Your task to perform on an android device: change the upload size in google photos Image 0: 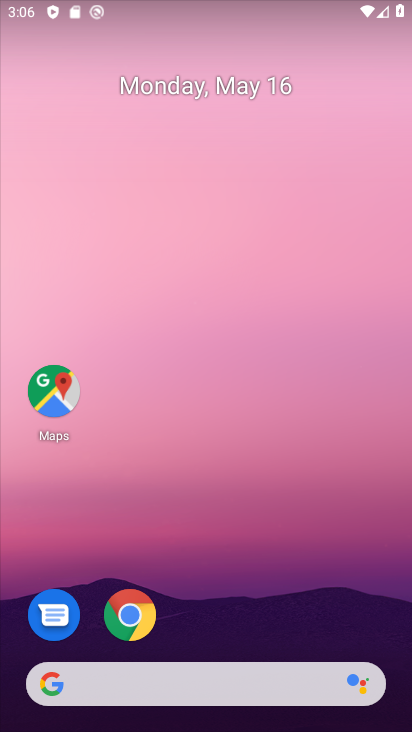
Step 0: drag from (289, 618) to (323, 59)
Your task to perform on an android device: change the upload size in google photos Image 1: 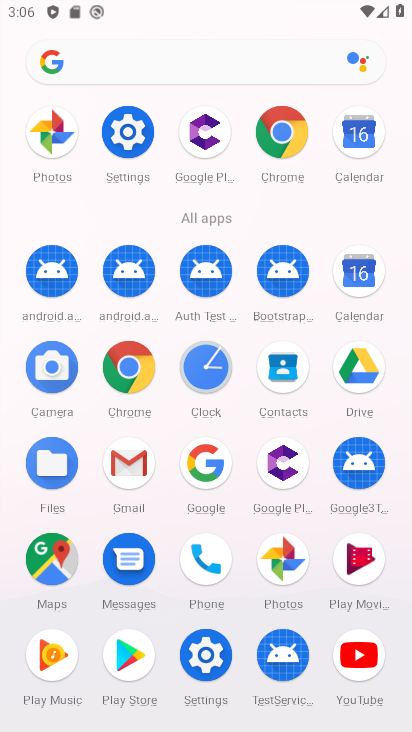
Step 1: click (286, 552)
Your task to perform on an android device: change the upload size in google photos Image 2: 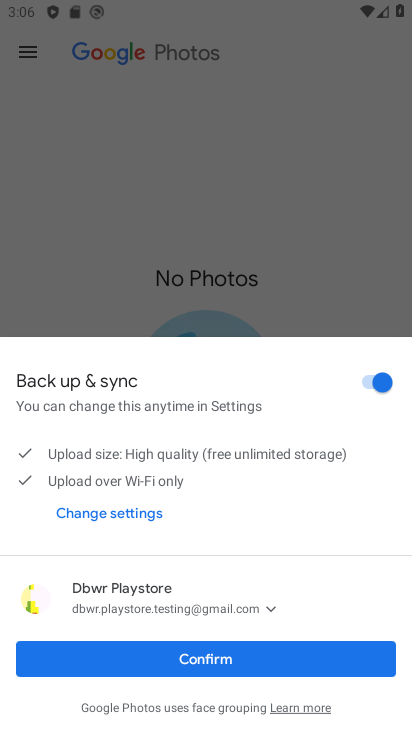
Step 2: click (37, 48)
Your task to perform on an android device: change the upload size in google photos Image 3: 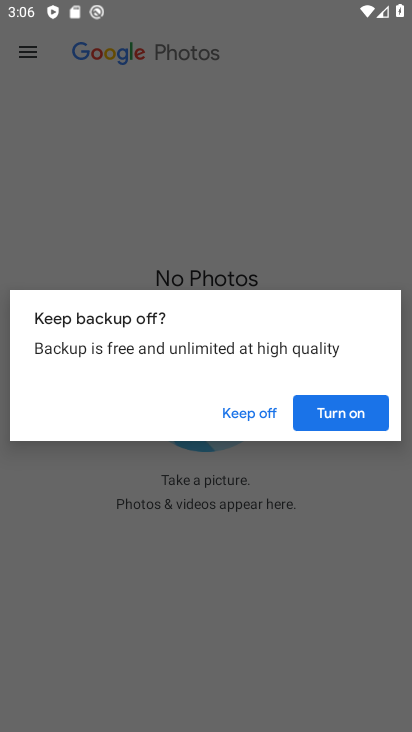
Step 3: click (330, 411)
Your task to perform on an android device: change the upload size in google photos Image 4: 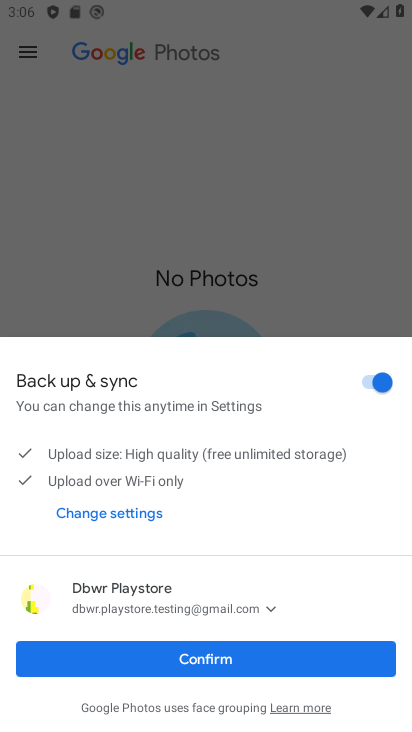
Step 4: click (223, 653)
Your task to perform on an android device: change the upload size in google photos Image 5: 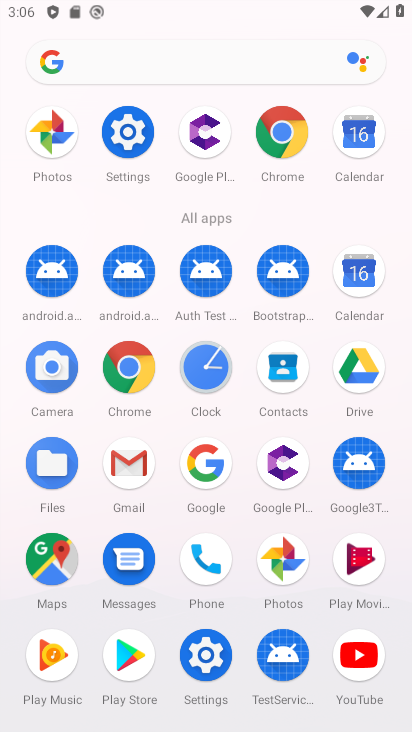
Step 5: click (51, 121)
Your task to perform on an android device: change the upload size in google photos Image 6: 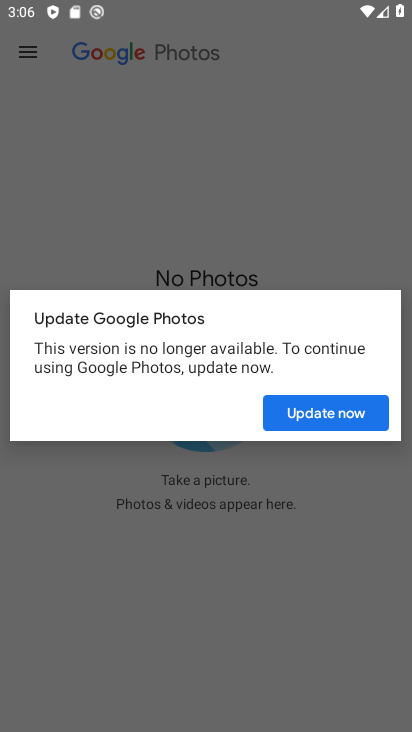
Step 6: click (284, 407)
Your task to perform on an android device: change the upload size in google photos Image 7: 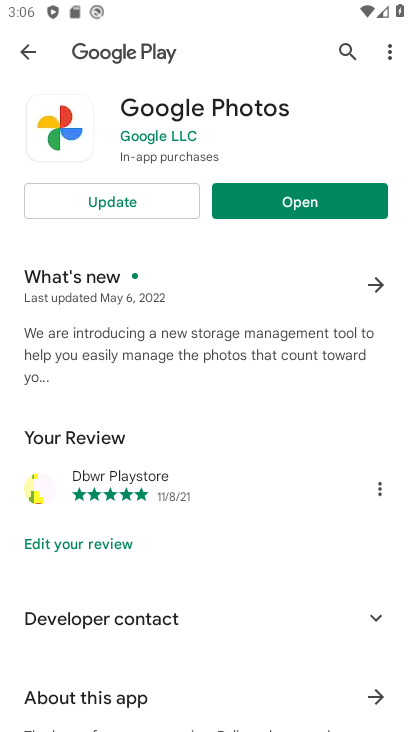
Step 7: click (322, 198)
Your task to perform on an android device: change the upload size in google photos Image 8: 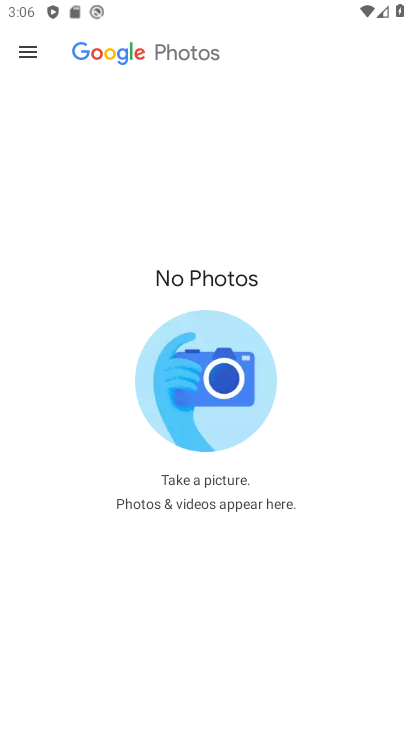
Step 8: click (24, 44)
Your task to perform on an android device: change the upload size in google photos Image 9: 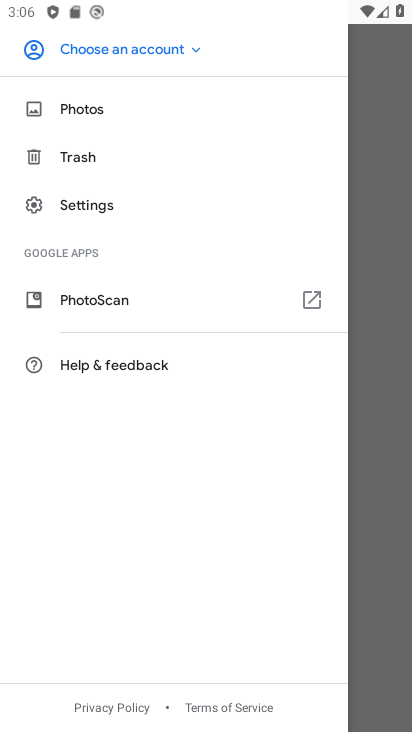
Step 9: click (75, 203)
Your task to perform on an android device: change the upload size in google photos Image 10: 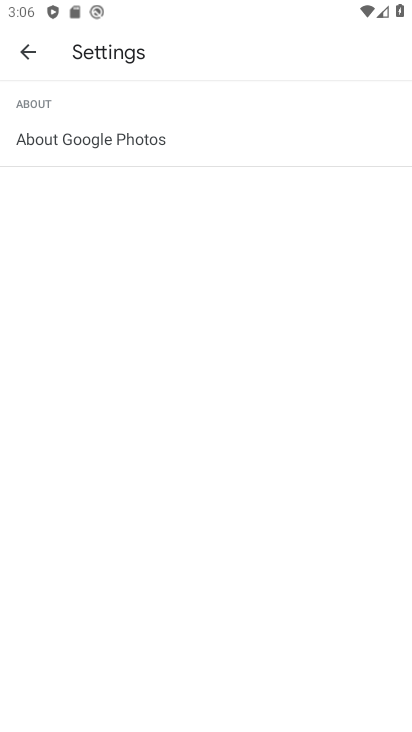
Step 10: click (102, 130)
Your task to perform on an android device: change the upload size in google photos Image 11: 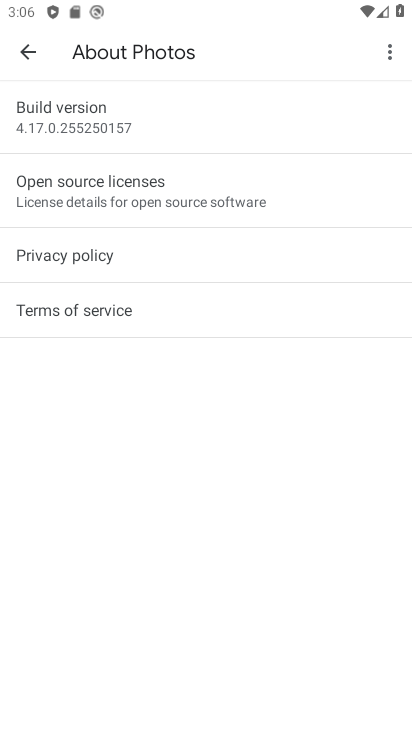
Step 11: click (31, 45)
Your task to perform on an android device: change the upload size in google photos Image 12: 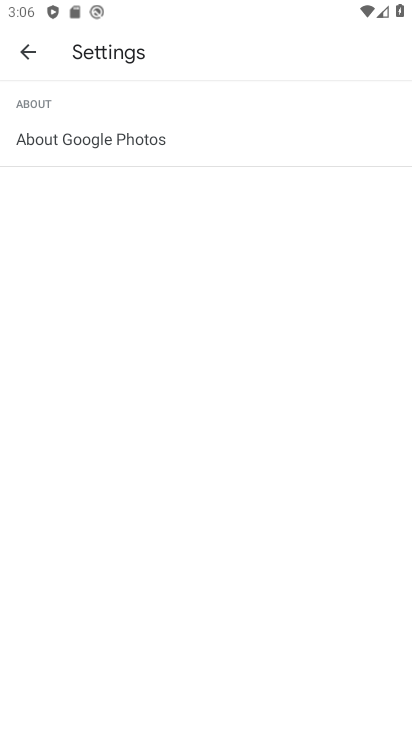
Step 12: click (31, 48)
Your task to perform on an android device: change the upload size in google photos Image 13: 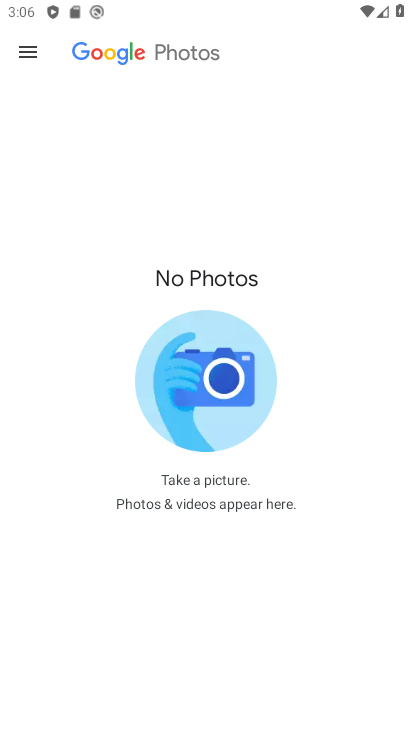
Step 13: click (31, 48)
Your task to perform on an android device: change the upload size in google photos Image 14: 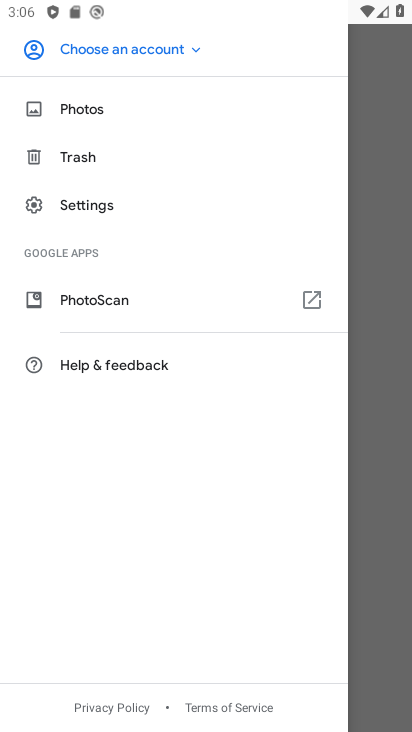
Step 14: click (81, 194)
Your task to perform on an android device: change the upload size in google photos Image 15: 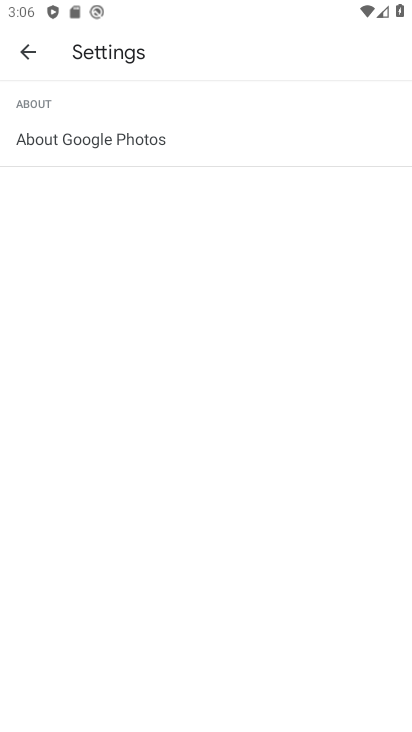
Step 15: click (28, 45)
Your task to perform on an android device: change the upload size in google photos Image 16: 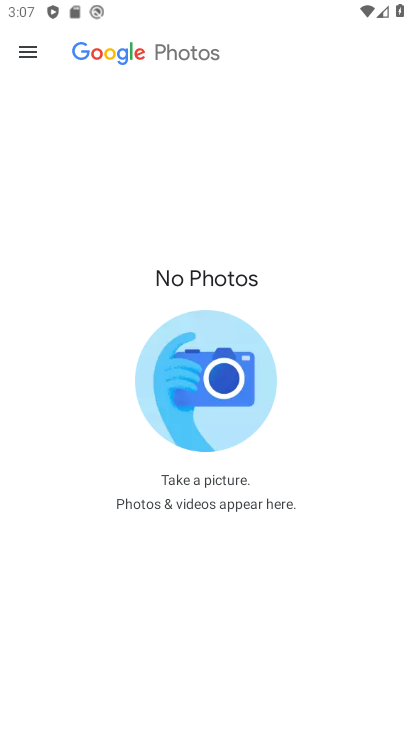
Step 16: click (26, 46)
Your task to perform on an android device: change the upload size in google photos Image 17: 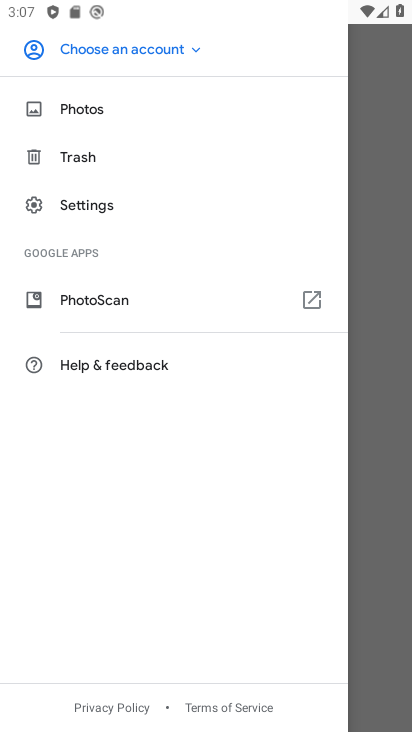
Step 17: click (195, 45)
Your task to perform on an android device: change the upload size in google photos Image 18: 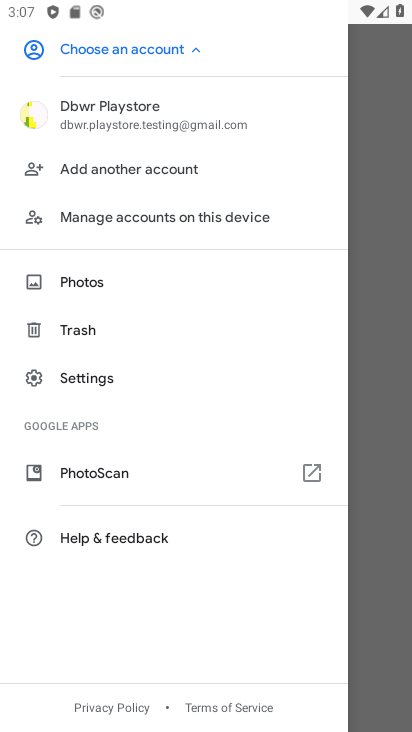
Step 18: click (166, 105)
Your task to perform on an android device: change the upload size in google photos Image 19: 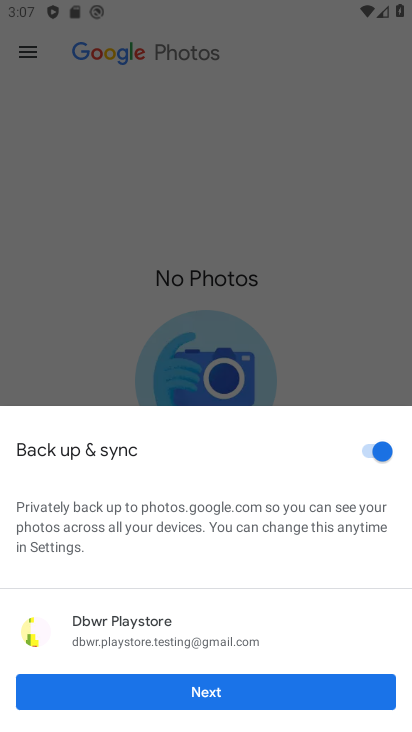
Step 19: click (240, 686)
Your task to perform on an android device: change the upload size in google photos Image 20: 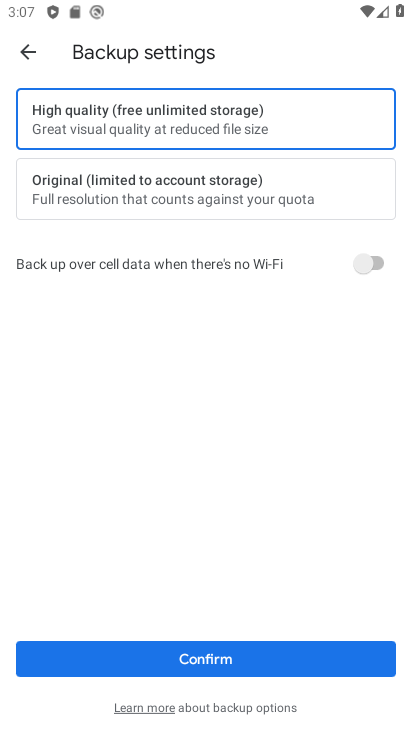
Step 20: click (115, 181)
Your task to perform on an android device: change the upload size in google photos Image 21: 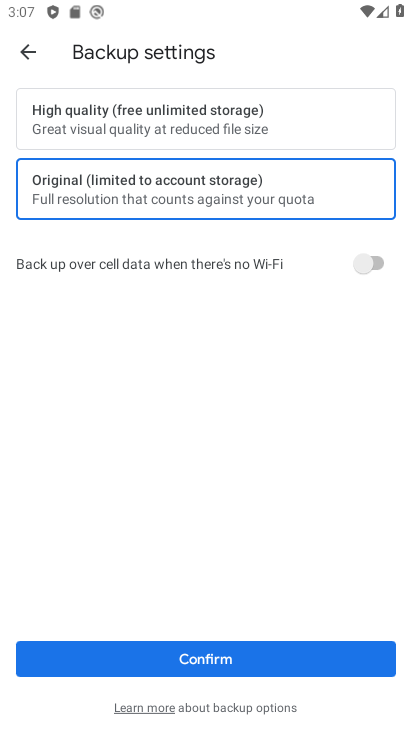
Step 21: click (369, 657)
Your task to perform on an android device: change the upload size in google photos Image 22: 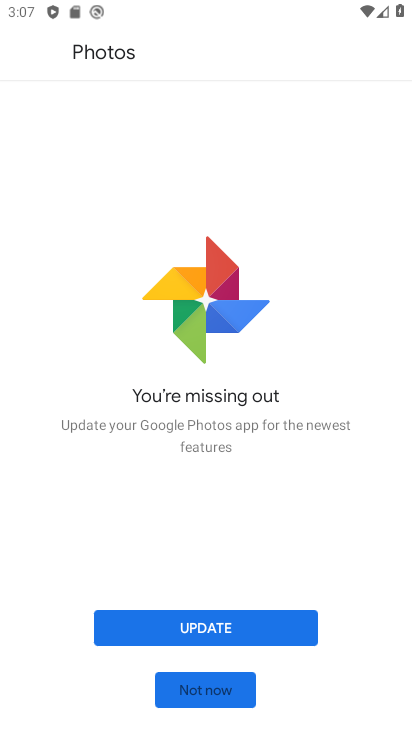
Step 22: task complete